Your task to perform on an android device: Open Google Chrome Image 0: 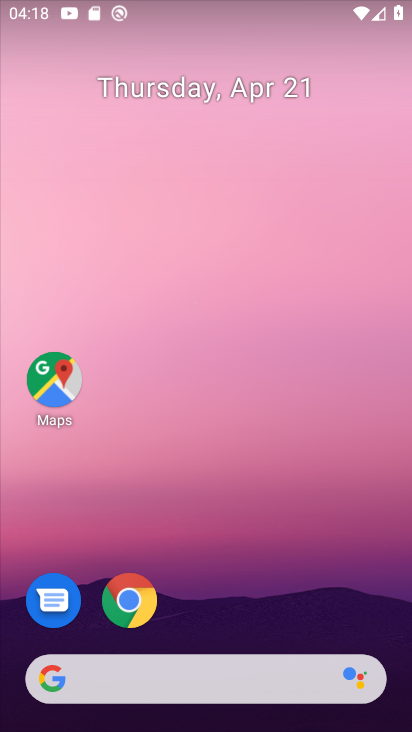
Step 0: click (134, 599)
Your task to perform on an android device: Open Google Chrome Image 1: 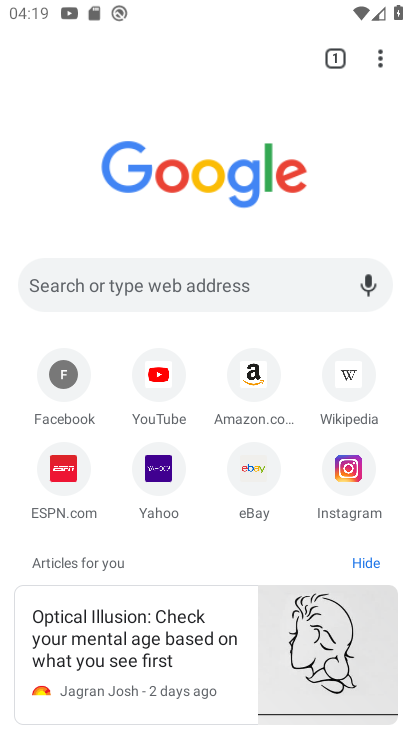
Step 1: task complete